Your task to perform on an android device: toggle sleep mode Image 0: 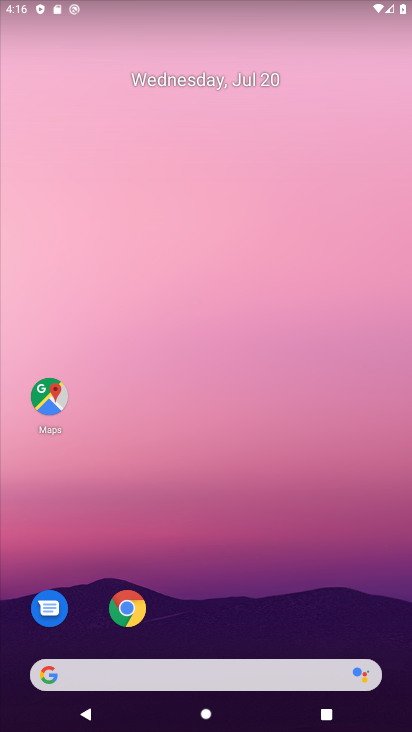
Step 0: drag from (215, 638) to (299, 99)
Your task to perform on an android device: toggle sleep mode Image 1: 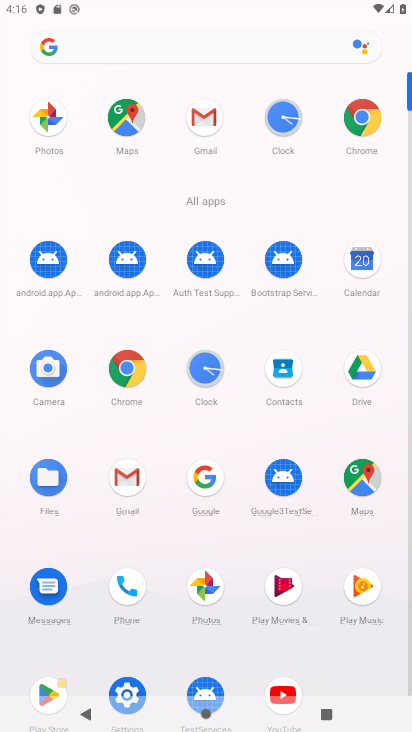
Step 1: click (124, 687)
Your task to perform on an android device: toggle sleep mode Image 2: 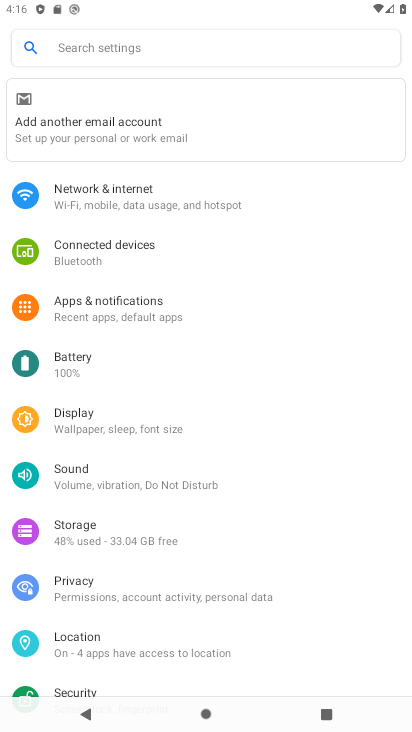
Step 2: click (146, 418)
Your task to perform on an android device: toggle sleep mode Image 3: 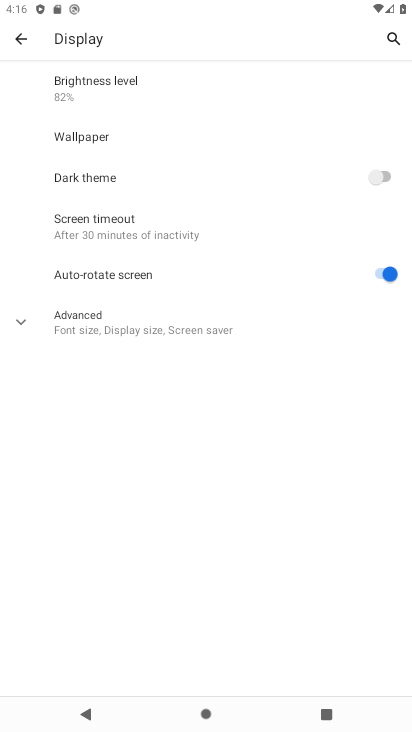
Step 3: task complete